Your task to perform on an android device: check android version Image 0: 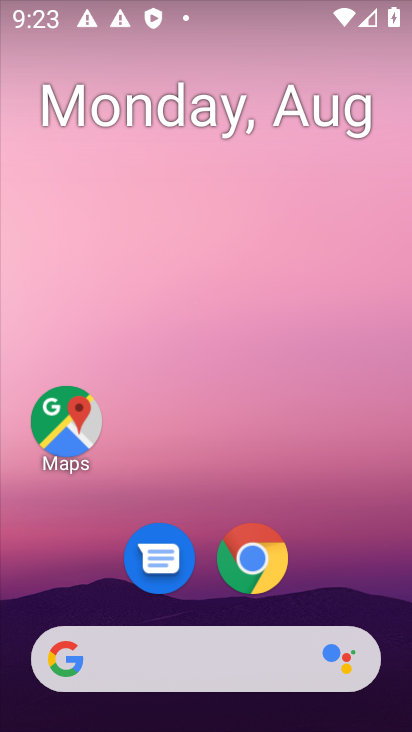
Step 0: press home button
Your task to perform on an android device: check android version Image 1: 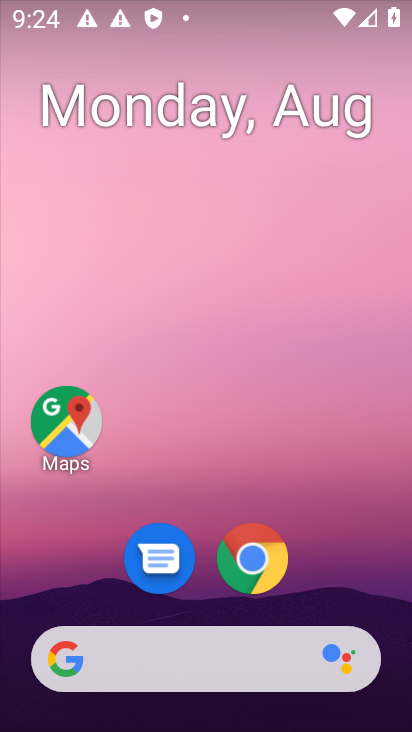
Step 1: drag from (197, 606) to (219, 89)
Your task to perform on an android device: check android version Image 2: 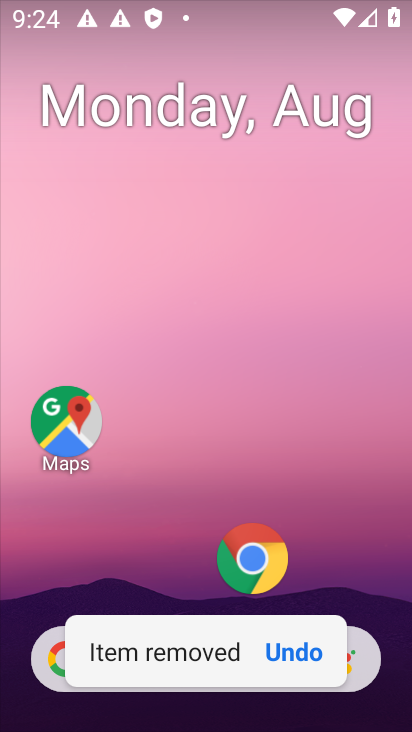
Step 2: drag from (334, 568) to (334, 0)
Your task to perform on an android device: check android version Image 3: 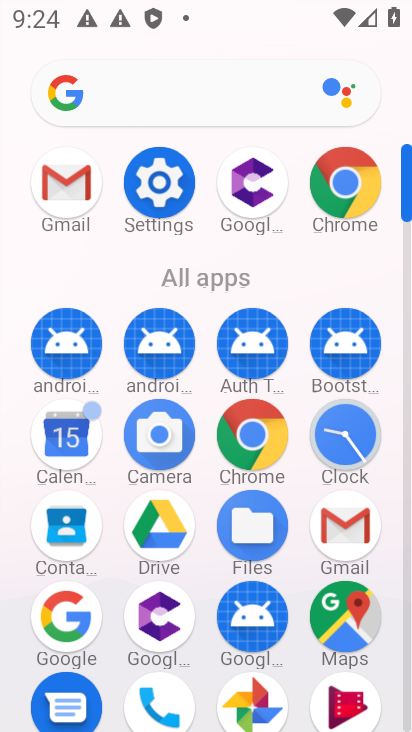
Step 3: click (151, 180)
Your task to perform on an android device: check android version Image 4: 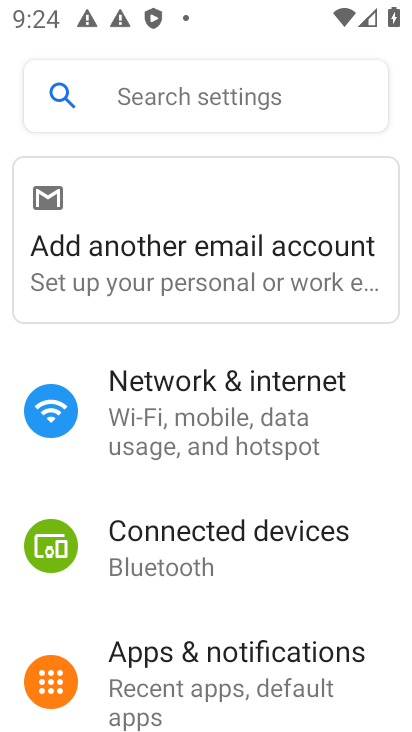
Step 4: drag from (87, 705) to (105, 56)
Your task to perform on an android device: check android version Image 5: 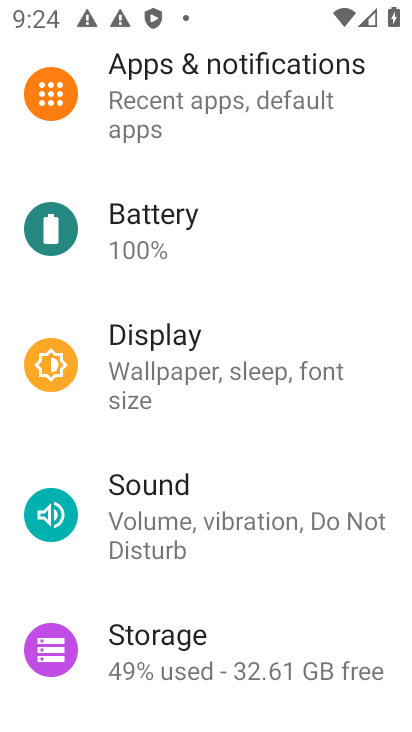
Step 5: drag from (92, 628) to (89, 61)
Your task to perform on an android device: check android version Image 6: 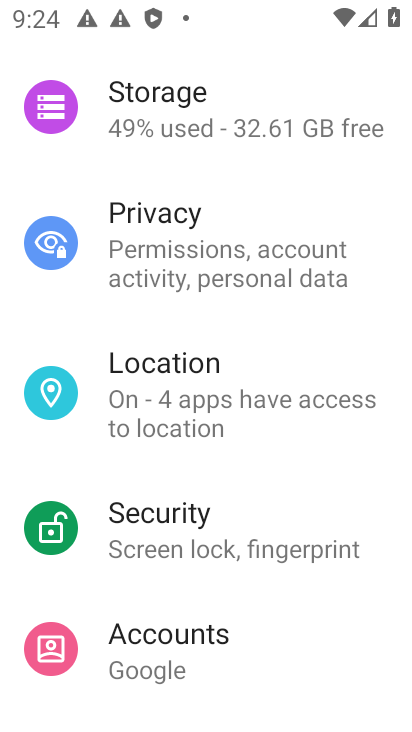
Step 6: drag from (84, 683) to (103, 201)
Your task to perform on an android device: check android version Image 7: 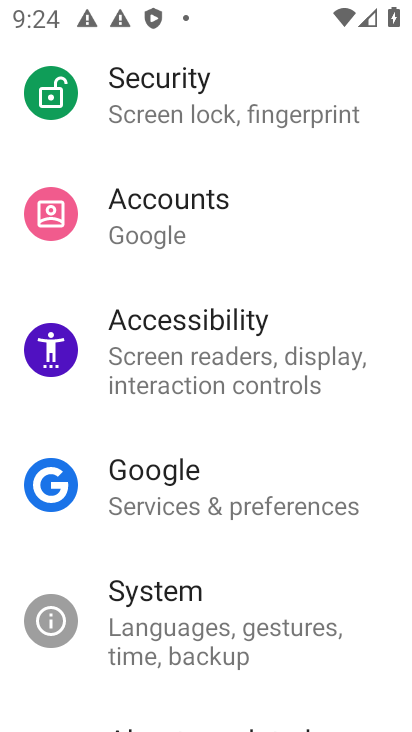
Step 7: drag from (95, 653) to (105, 317)
Your task to perform on an android device: check android version Image 8: 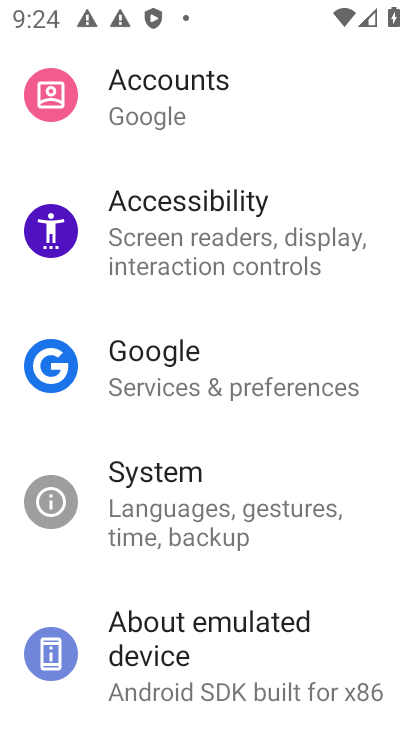
Step 8: click (90, 642)
Your task to perform on an android device: check android version Image 9: 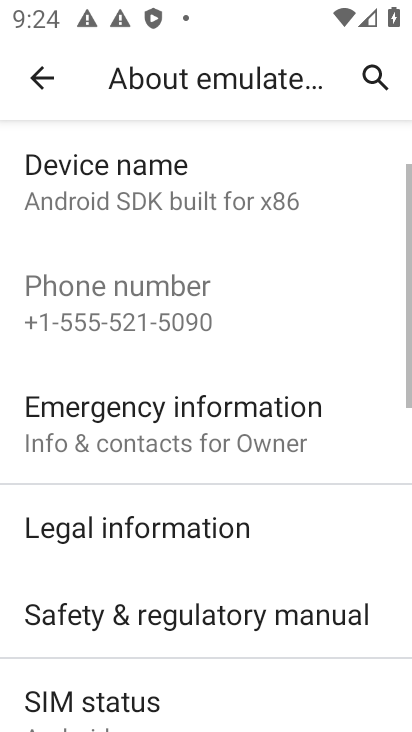
Step 9: drag from (153, 657) to (172, 136)
Your task to perform on an android device: check android version Image 10: 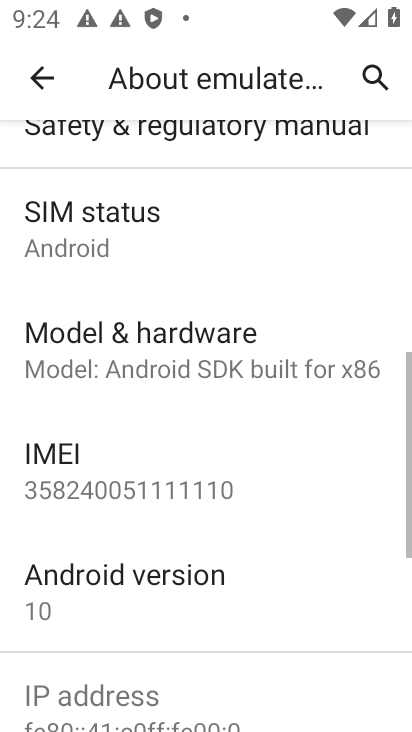
Step 10: click (77, 615)
Your task to perform on an android device: check android version Image 11: 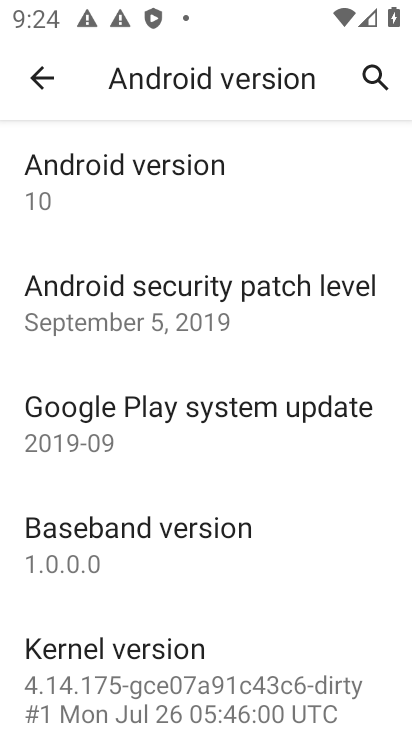
Step 11: task complete